Your task to perform on an android device: change the clock display to analog Image 0: 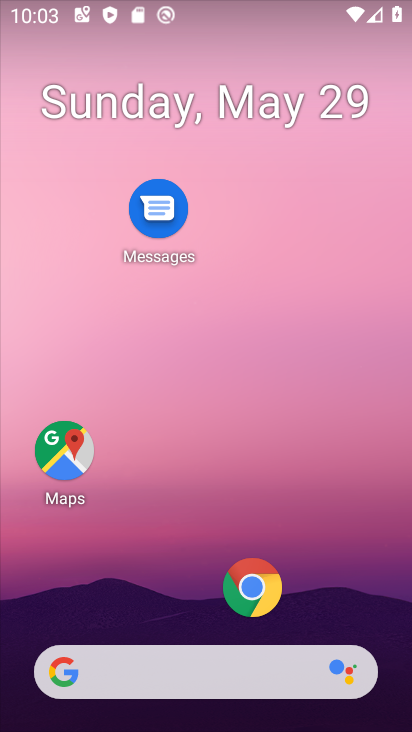
Step 0: drag from (164, 561) to (226, 59)
Your task to perform on an android device: change the clock display to analog Image 1: 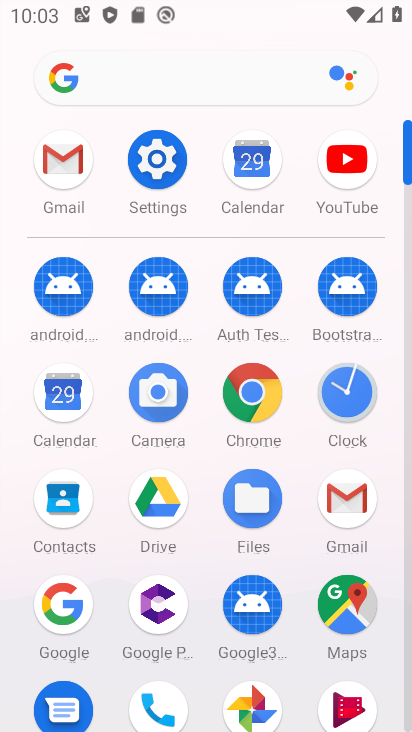
Step 1: click (334, 414)
Your task to perform on an android device: change the clock display to analog Image 2: 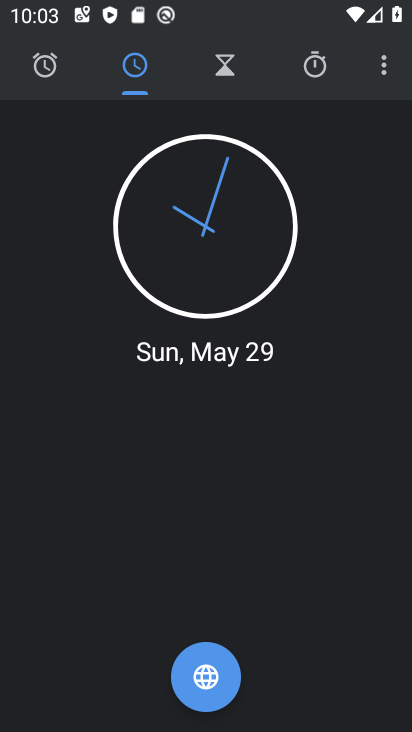
Step 2: task complete